Your task to perform on an android device: Open Google Chrome and open the bookmarks view Image 0: 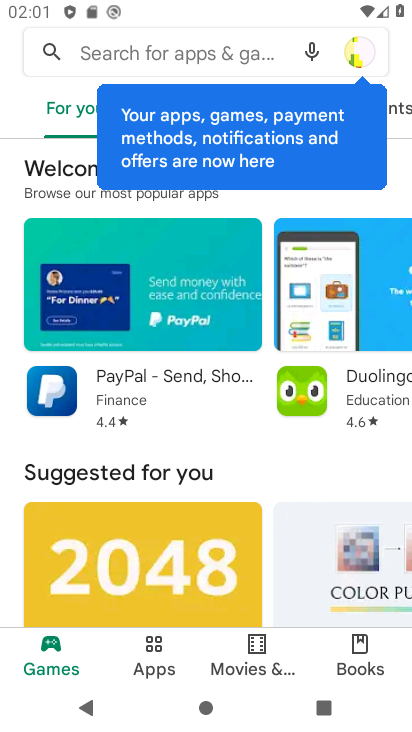
Step 0: press home button
Your task to perform on an android device: Open Google Chrome and open the bookmarks view Image 1: 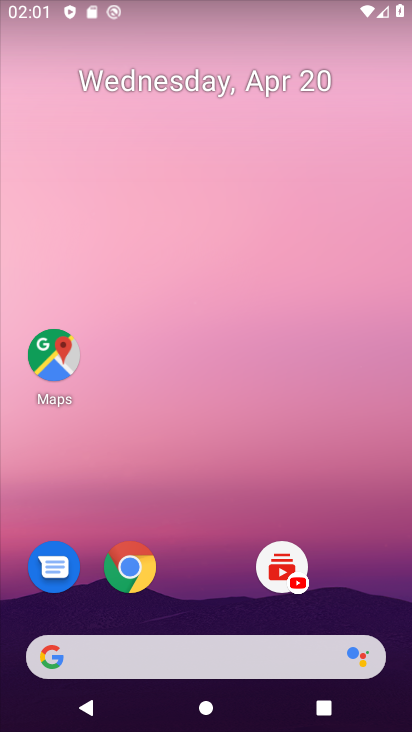
Step 1: drag from (215, 588) to (263, 252)
Your task to perform on an android device: Open Google Chrome and open the bookmarks view Image 2: 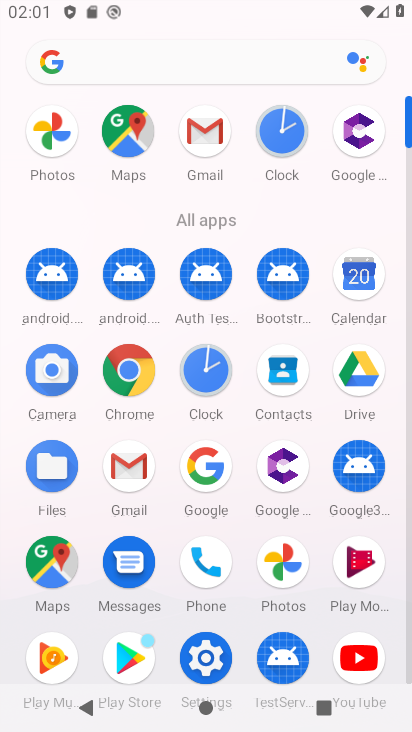
Step 2: click (134, 363)
Your task to perform on an android device: Open Google Chrome and open the bookmarks view Image 3: 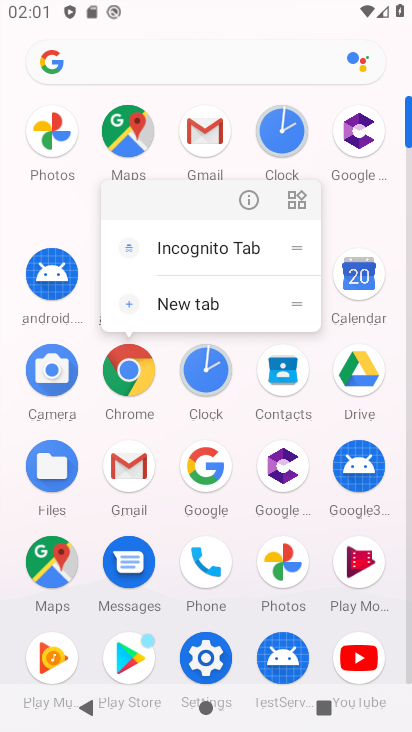
Step 3: click (252, 192)
Your task to perform on an android device: Open Google Chrome and open the bookmarks view Image 4: 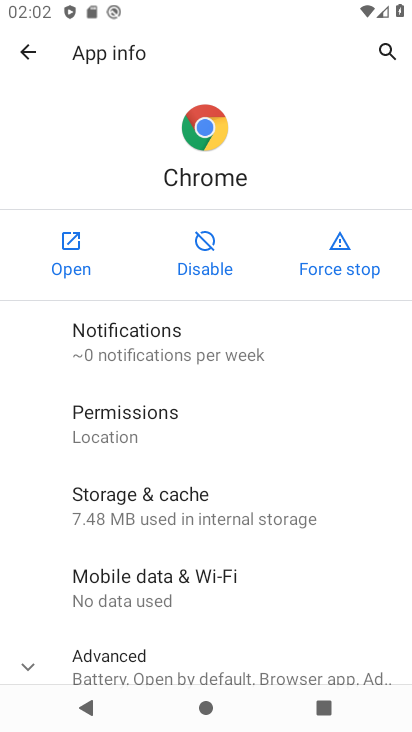
Step 4: click (59, 250)
Your task to perform on an android device: Open Google Chrome and open the bookmarks view Image 5: 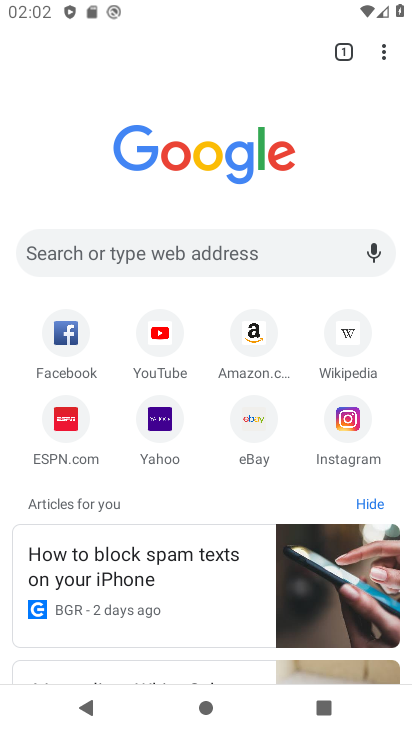
Step 5: click (381, 66)
Your task to perform on an android device: Open Google Chrome and open the bookmarks view Image 6: 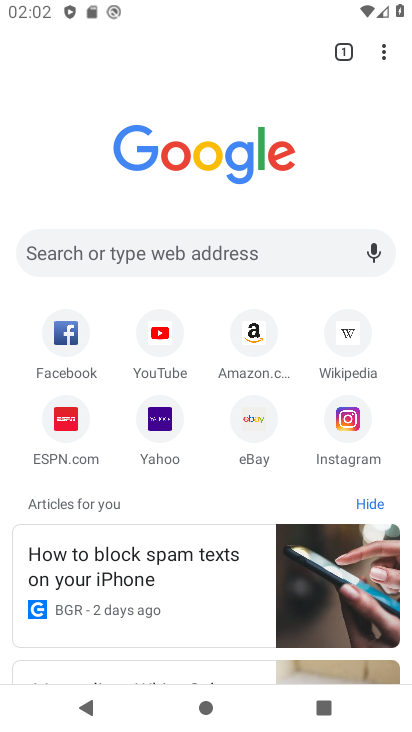
Step 6: drag from (381, 43) to (298, 183)
Your task to perform on an android device: Open Google Chrome and open the bookmarks view Image 7: 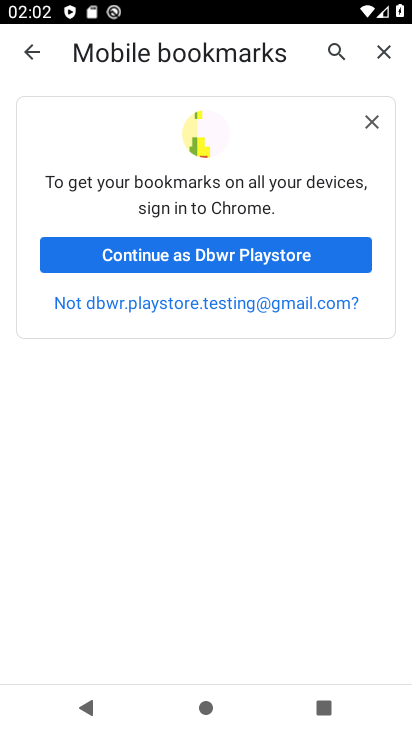
Step 7: drag from (288, 413) to (259, 166)
Your task to perform on an android device: Open Google Chrome and open the bookmarks view Image 8: 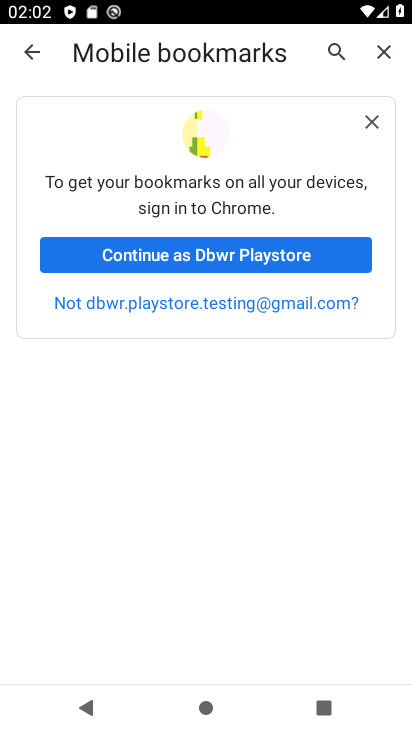
Step 8: click (377, 116)
Your task to perform on an android device: Open Google Chrome and open the bookmarks view Image 9: 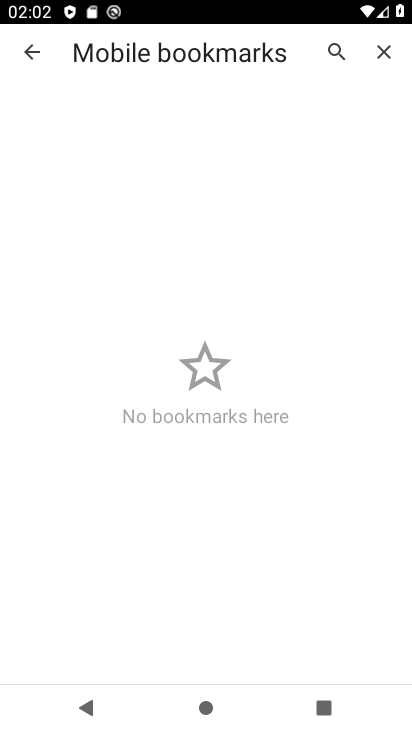
Step 9: click (375, 53)
Your task to perform on an android device: Open Google Chrome and open the bookmarks view Image 10: 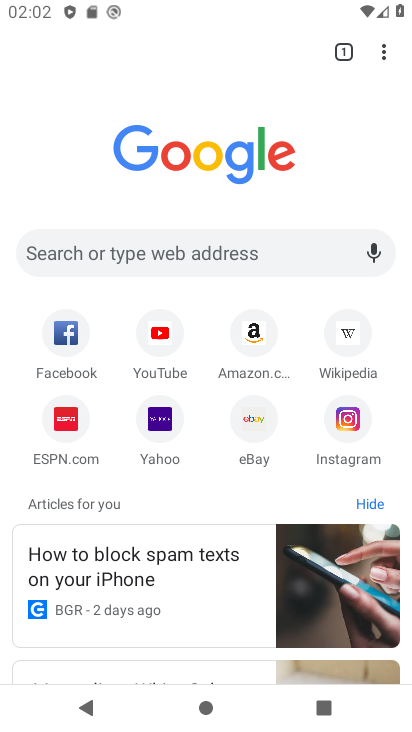
Step 10: task complete